Your task to perform on an android device: Go to Yahoo.com Image 0: 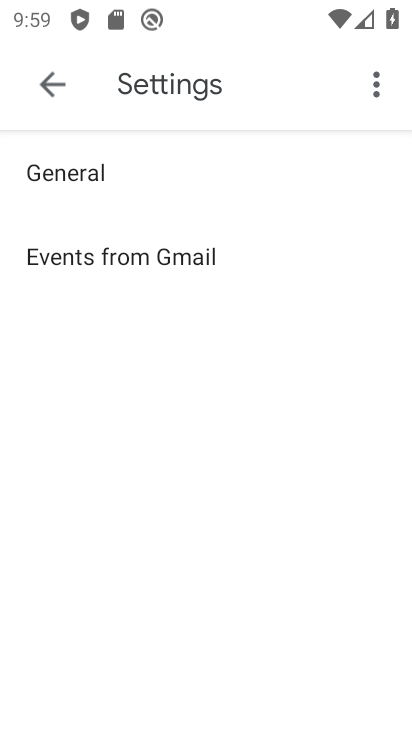
Step 0: press back button
Your task to perform on an android device: Go to Yahoo.com Image 1: 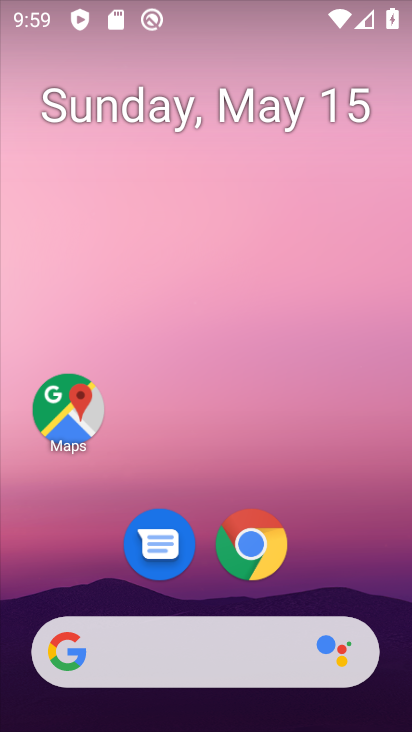
Step 1: click (257, 561)
Your task to perform on an android device: Go to Yahoo.com Image 2: 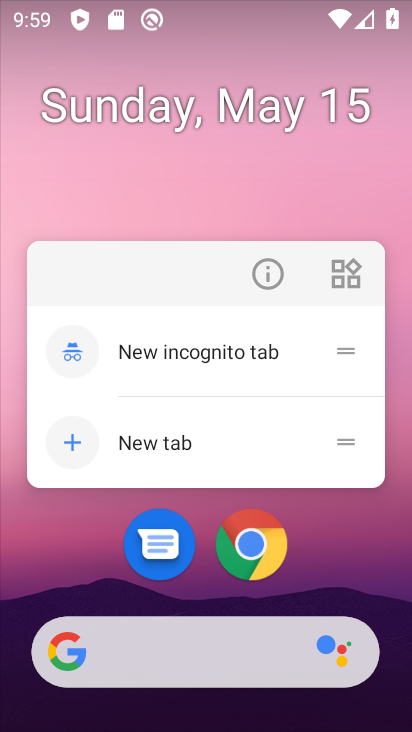
Step 2: click (258, 541)
Your task to perform on an android device: Go to Yahoo.com Image 3: 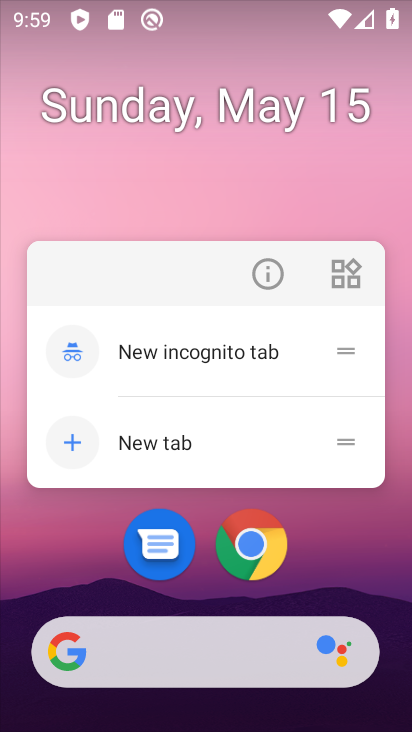
Step 3: click (257, 551)
Your task to perform on an android device: Go to Yahoo.com Image 4: 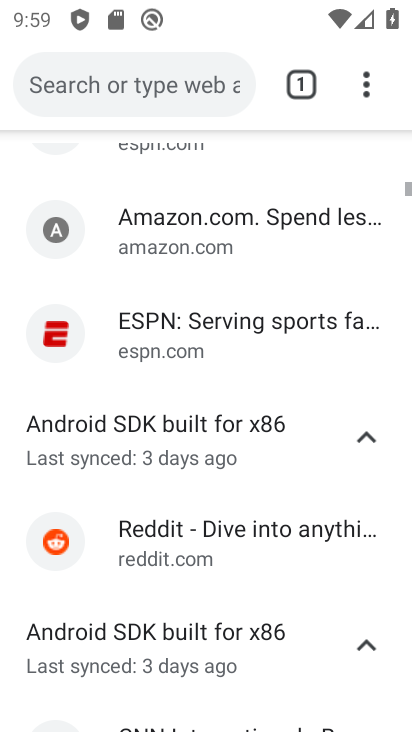
Step 4: drag from (365, 107) to (306, 171)
Your task to perform on an android device: Go to Yahoo.com Image 5: 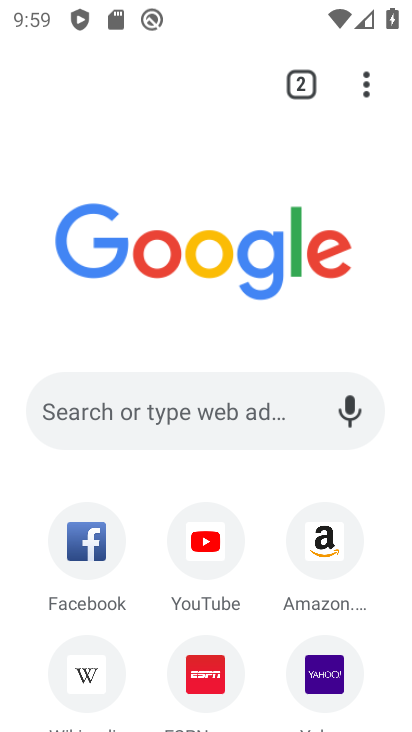
Step 5: click (327, 695)
Your task to perform on an android device: Go to Yahoo.com Image 6: 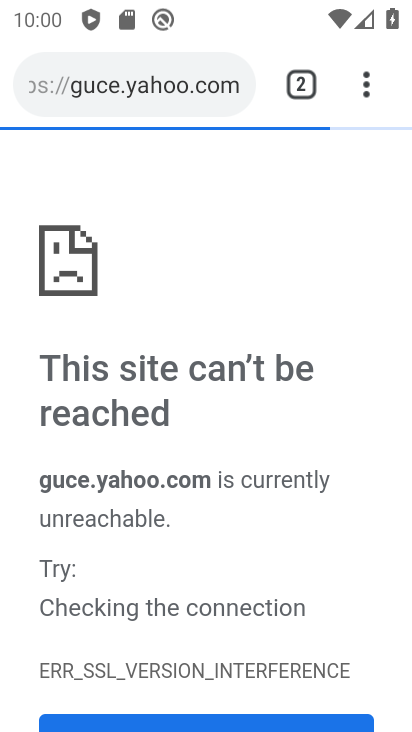
Step 6: drag from (274, 583) to (343, 410)
Your task to perform on an android device: Go to Yahoo.com Image 7: 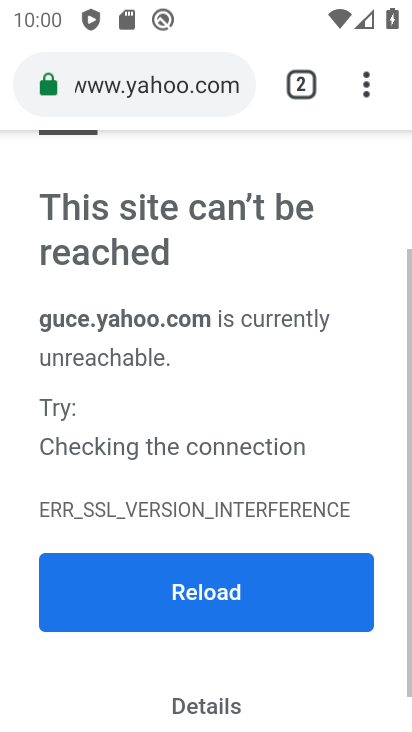
Step 7: click (232, 589)
Your task to perform on an android device: Go to Yahoo.com Image 8: 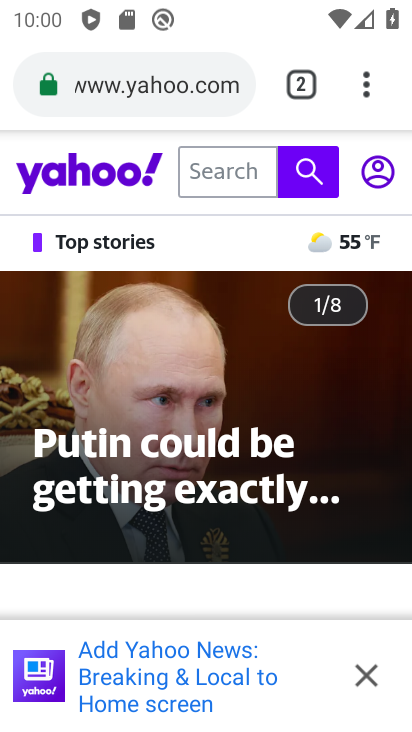
Step 8: task complete